Your task to perform on an android device: Clear the shopping cart on walmart.com. Add razer blade to the cart on walmart.com Image 0: 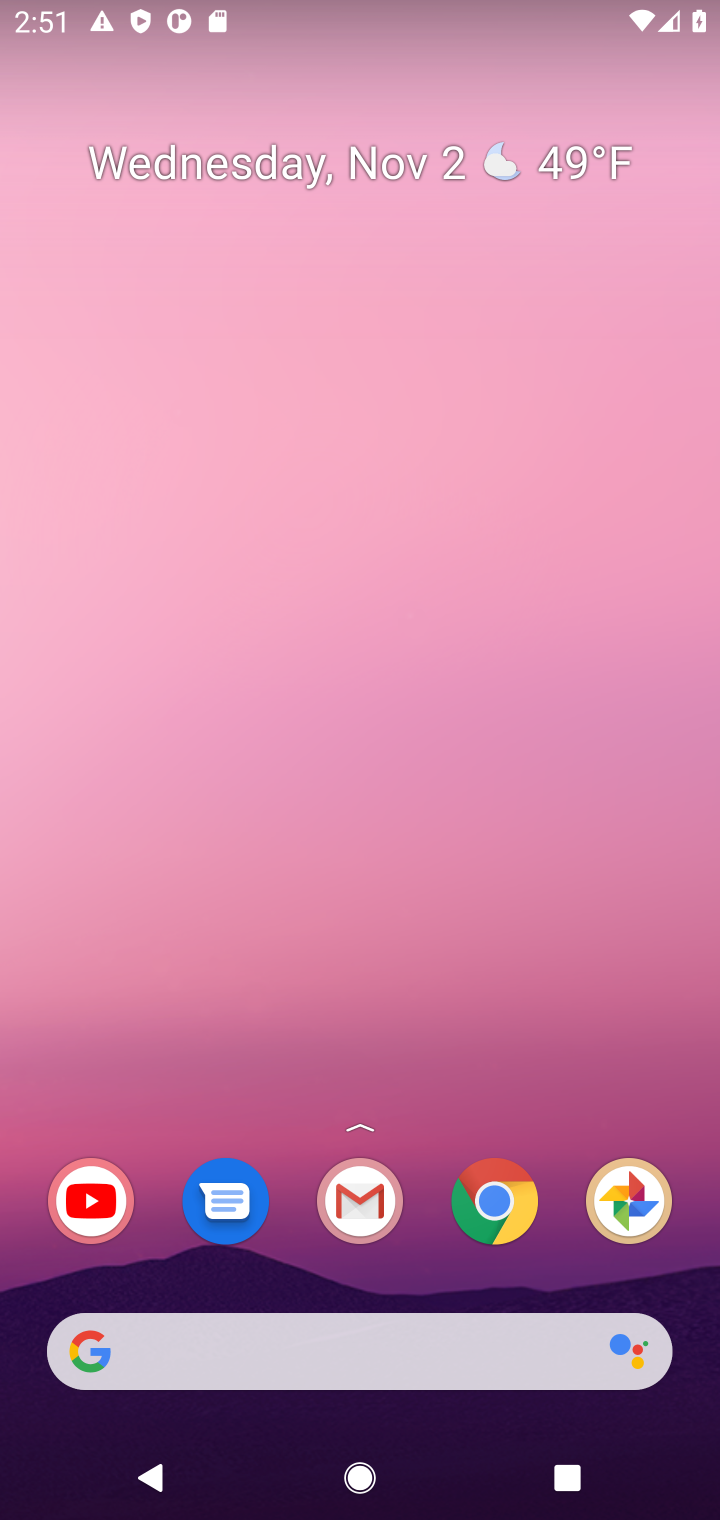
Step 0: click (483, 1191)
Your task to perform on an android device: Clear the shopping cart on walmart.com. Add razer blade to the cart on walmart.com Image 1: 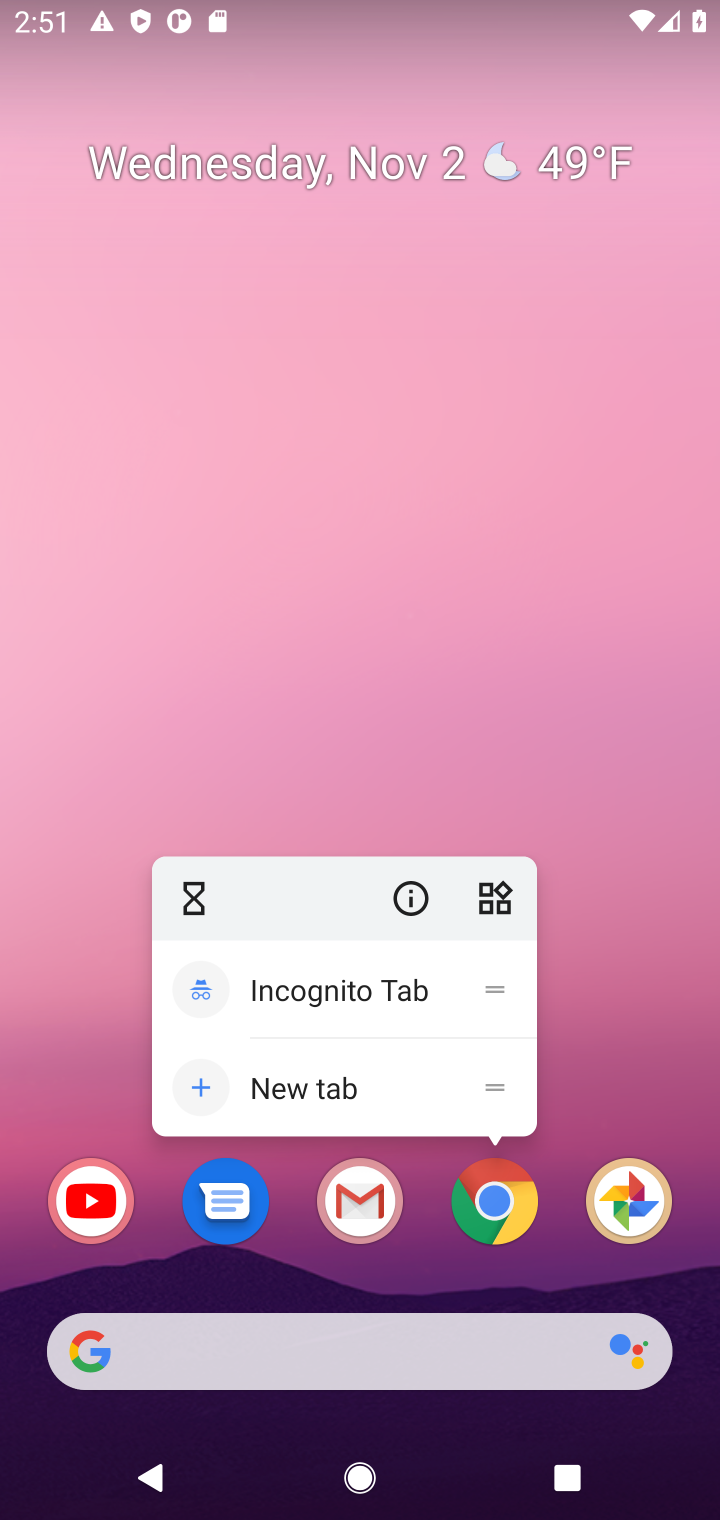
Step 1: click (492, 1199)
Your task to perform on an android device: Clear the shopping cart on walmart.com. Add razer blade to the cart on walmart.com Image 2: 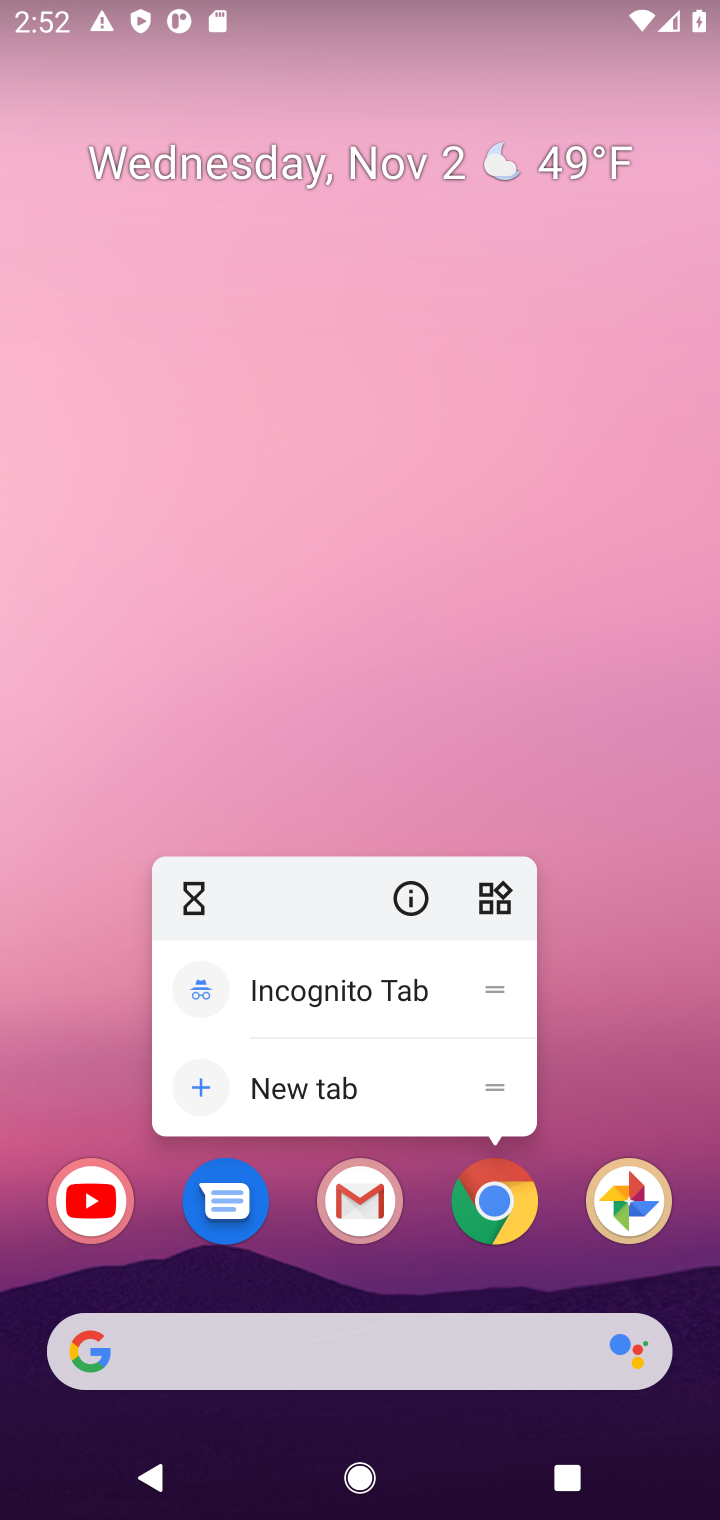
Step 2: click (494, 1190)
Your task to perform on an android device: Clear the shopping cart on walmart.com. Add razer blade to the cart on walmart.com Image 3: 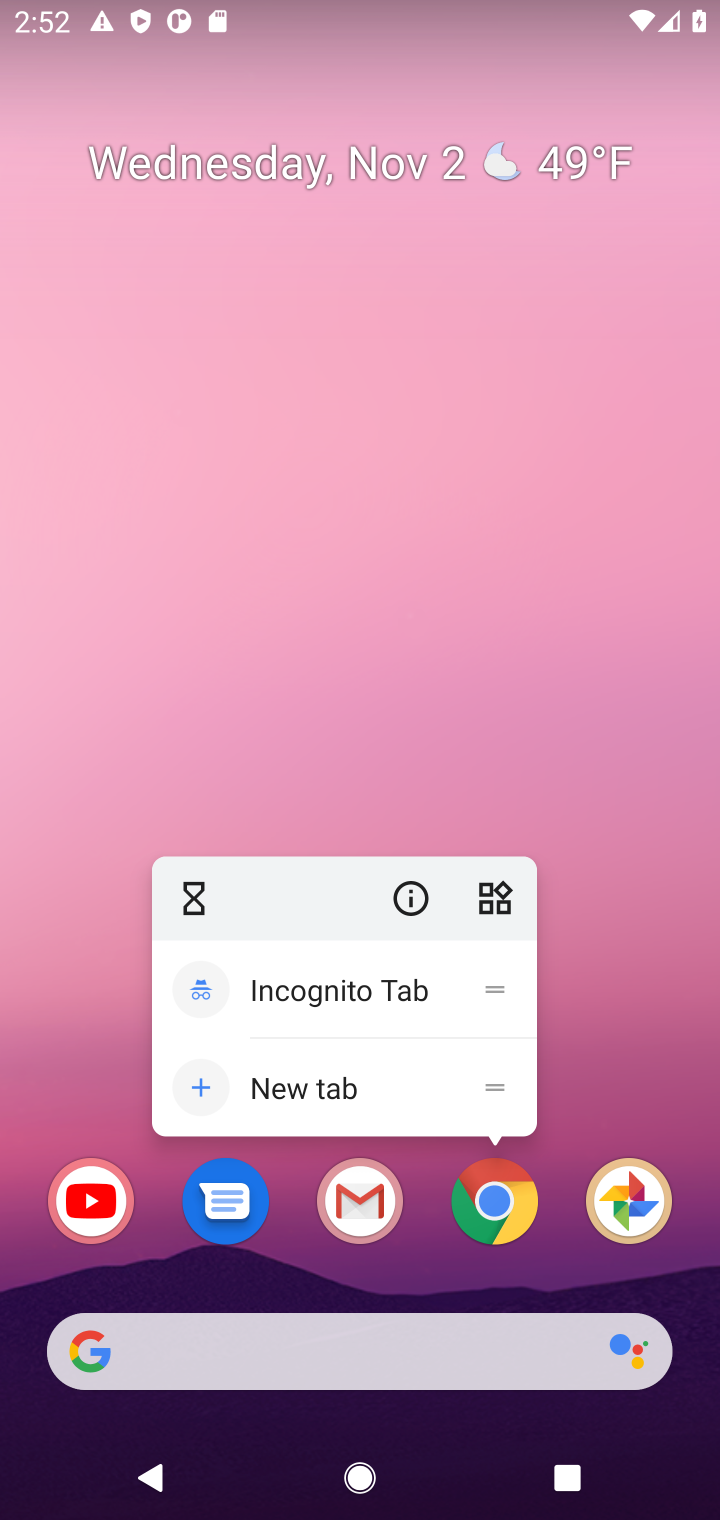
Step 3: click (489, 1202)
Your task to perform on an android device: Clear the shopping cart on walmart.com. Add razer blade to the cart on walmart.com Image 4: 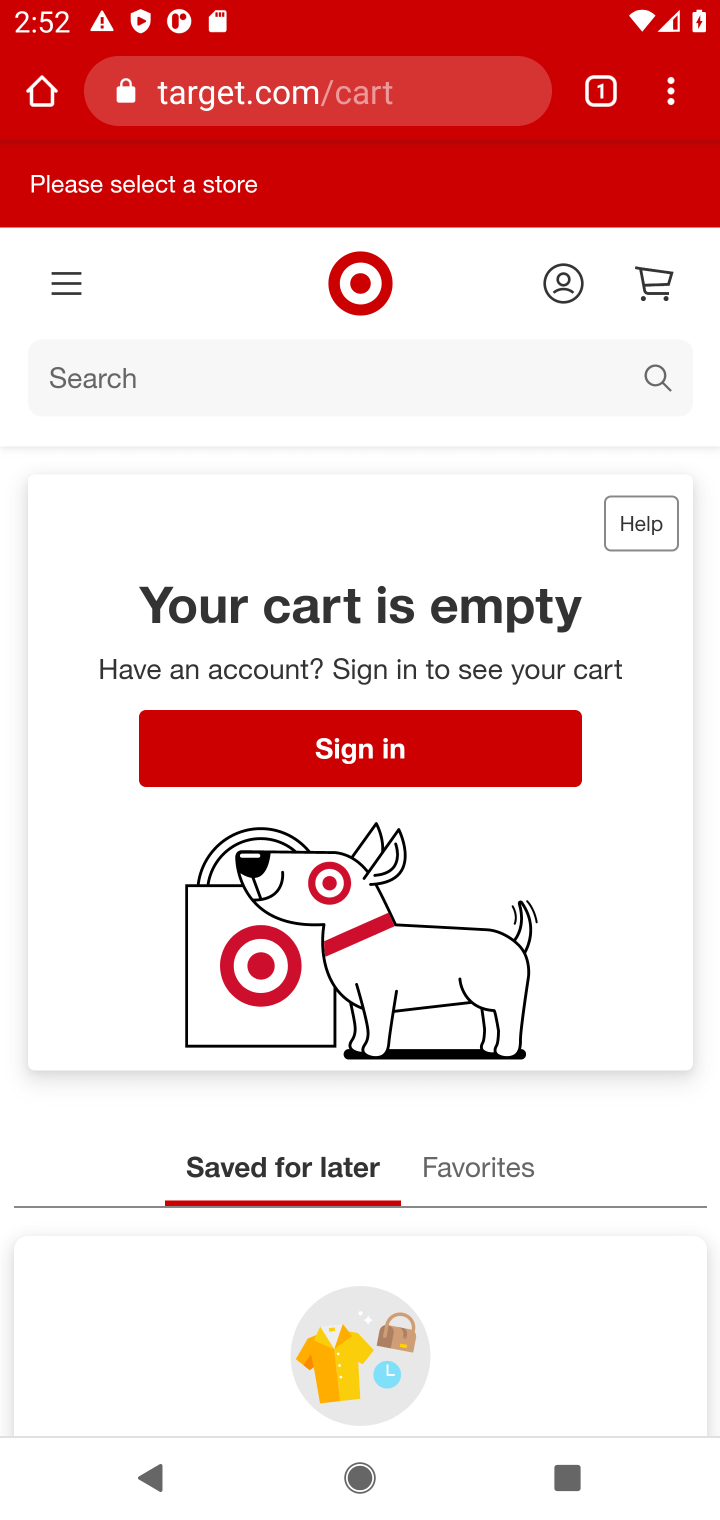
Step 4: click (310, 84)
Your task to perform on an android device: Clear the shopping cart on walmart.com. Add razer blade to the cart on walmart.com Image 5: 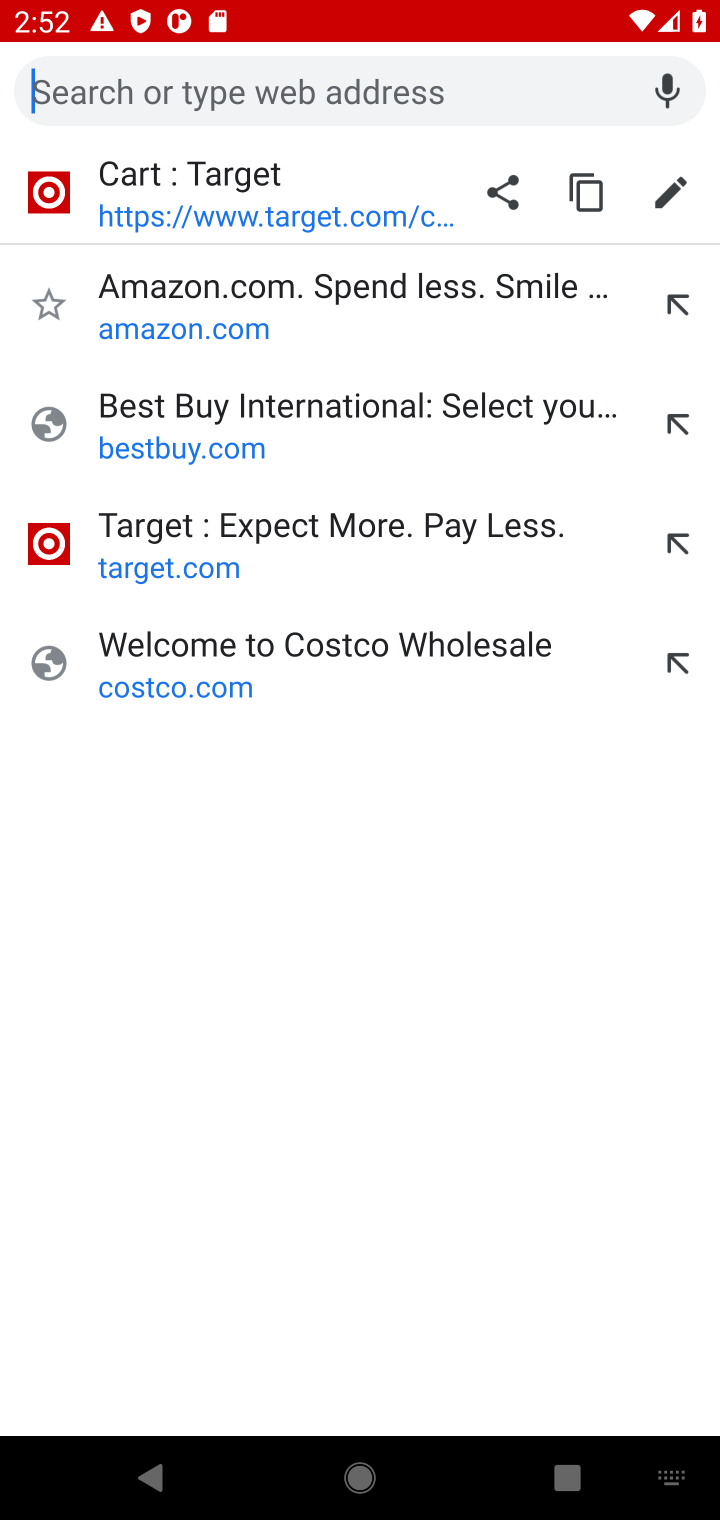
Step 5: type " walmart.com"
Your task to perform on an android device: Clear the shopping cart on walmart.com. Add razer blade to the cart on walmart.com Image 6: 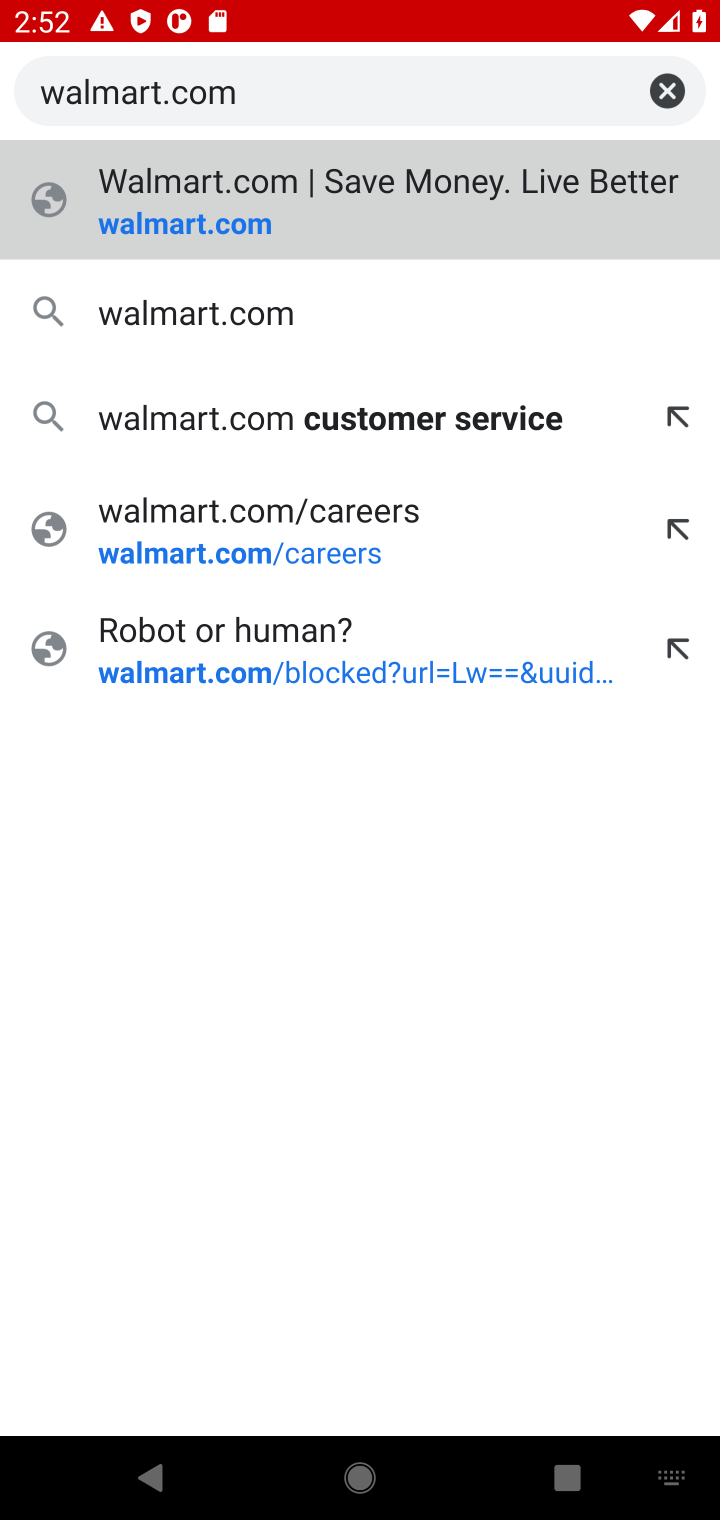
Step 6: press enter
Your task to perform on an android device: Clear the shopping cart on walmart.com. Add razer blade to the cart on walmart.com Image 7: 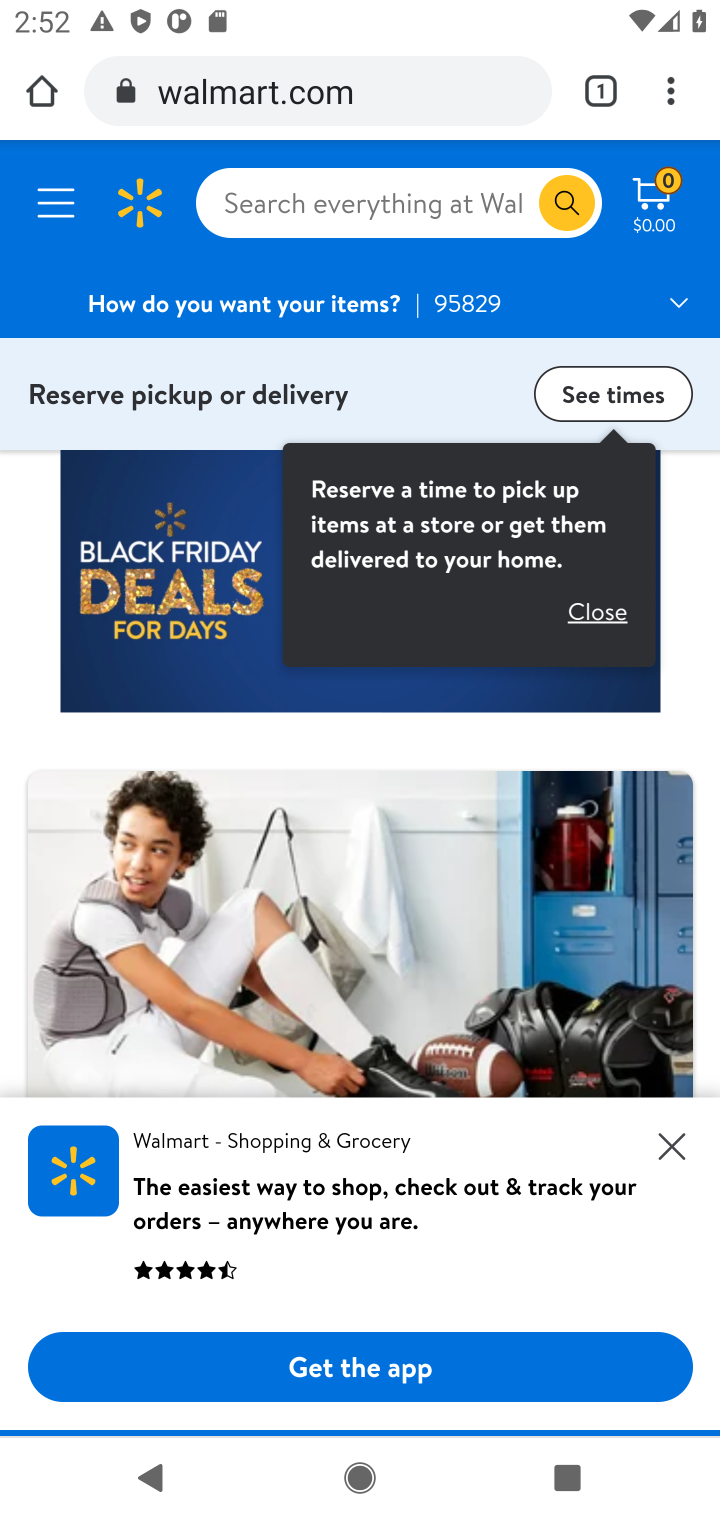
Step 7: click (399, 200)
Your task to perform on an android device: Clear the shopping cart on walmart.com. Add razer blade to the cart on walmart.com Image 8: 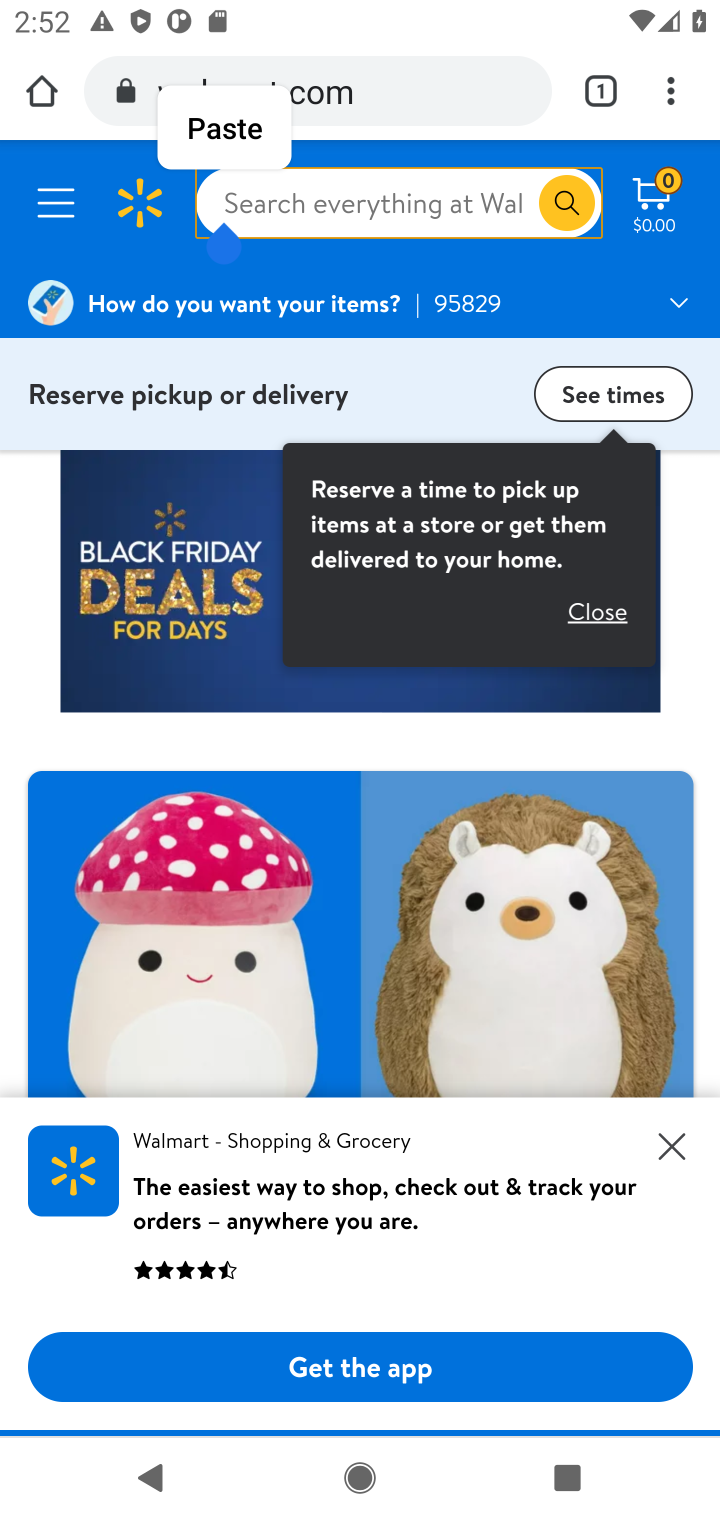
Step 8: click (396, 211)
Your task to perform on an android device: Clear the shopping cart on walmart.com. Add razer blade to the cart on walmart.com Image 9: 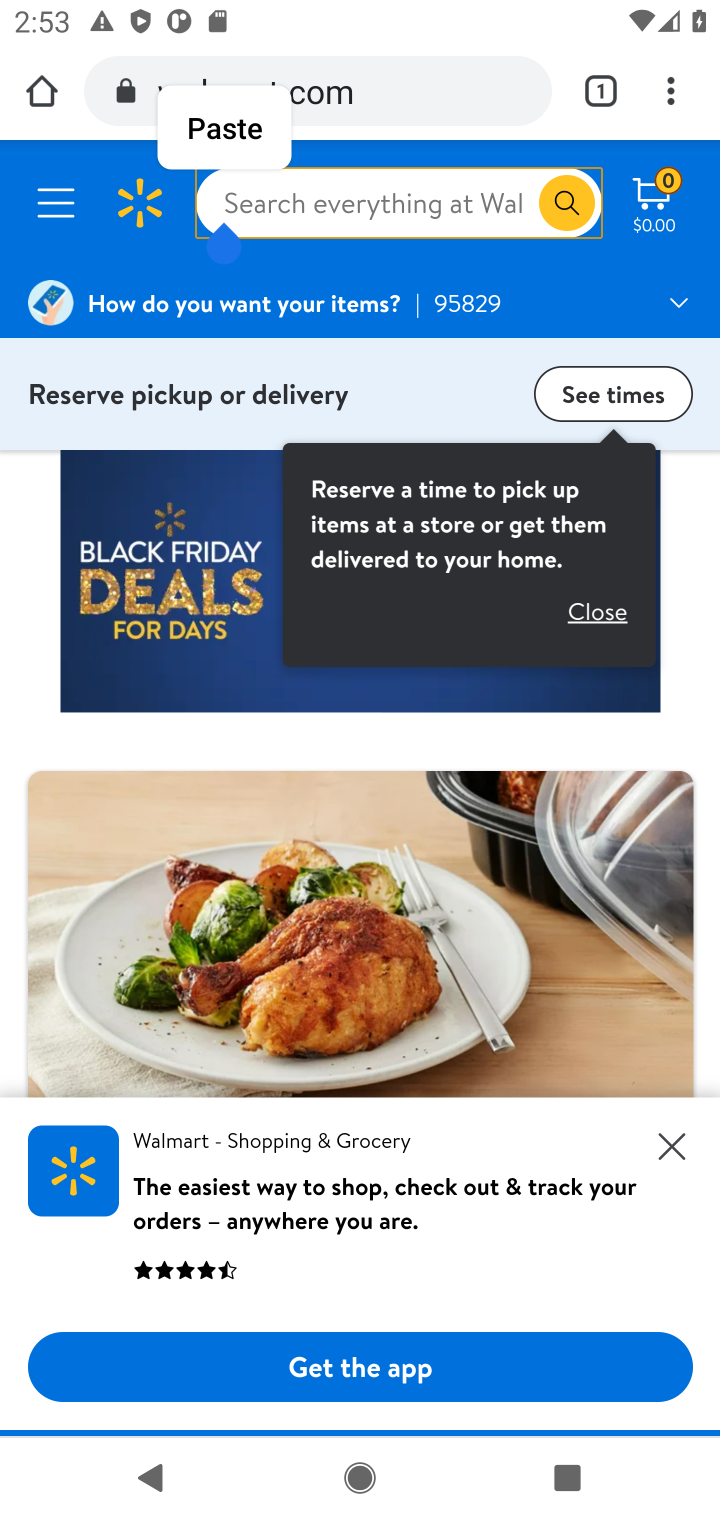
Step 9: click (492, 195)
Your task to perform on an android device: Clear the shopping cart on walmart.com. Add razer blade to the cart on walmart.com Image 10: 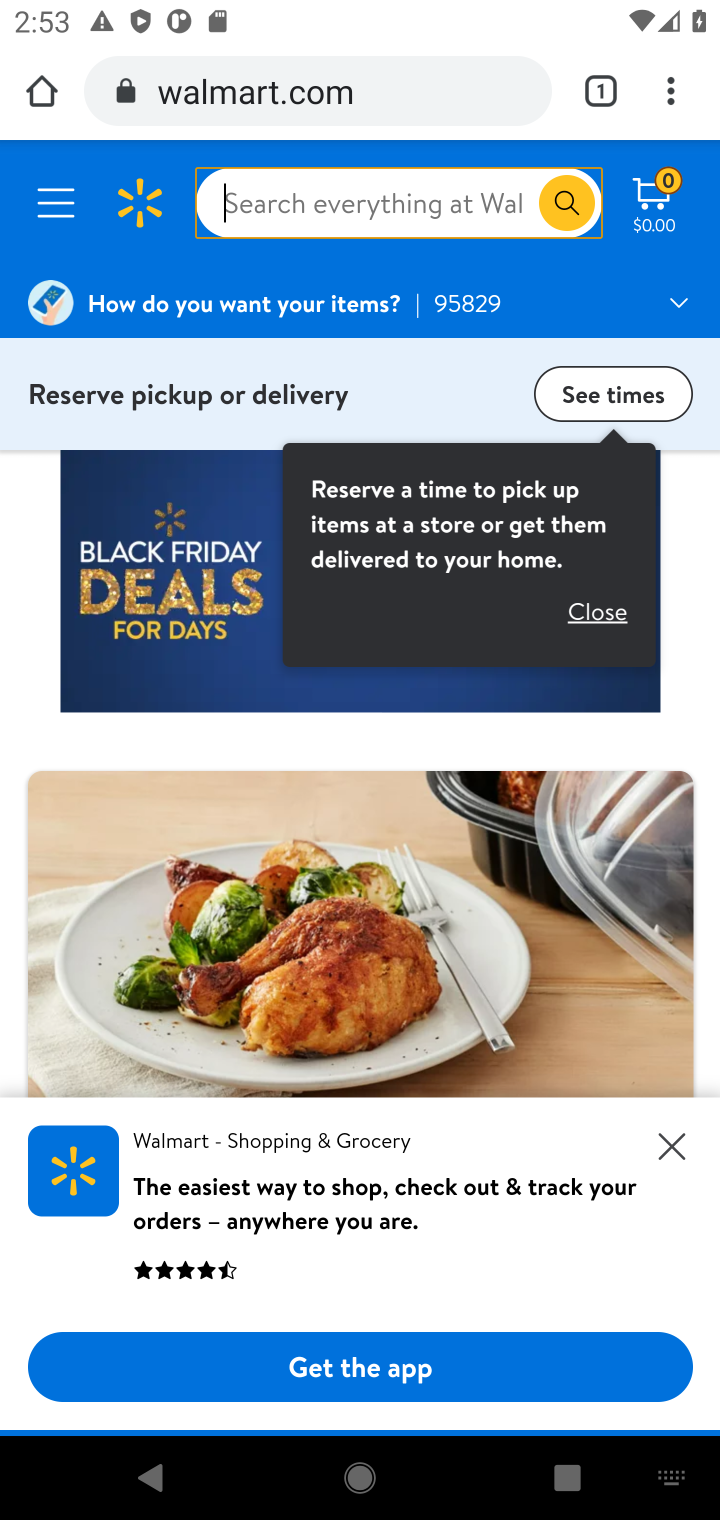
Step 10: click (293, 204)
Your task to perform on an android device: Clear the shopping cart on walmart.com. Add razer blade to the cart on walmart.com Image 11: 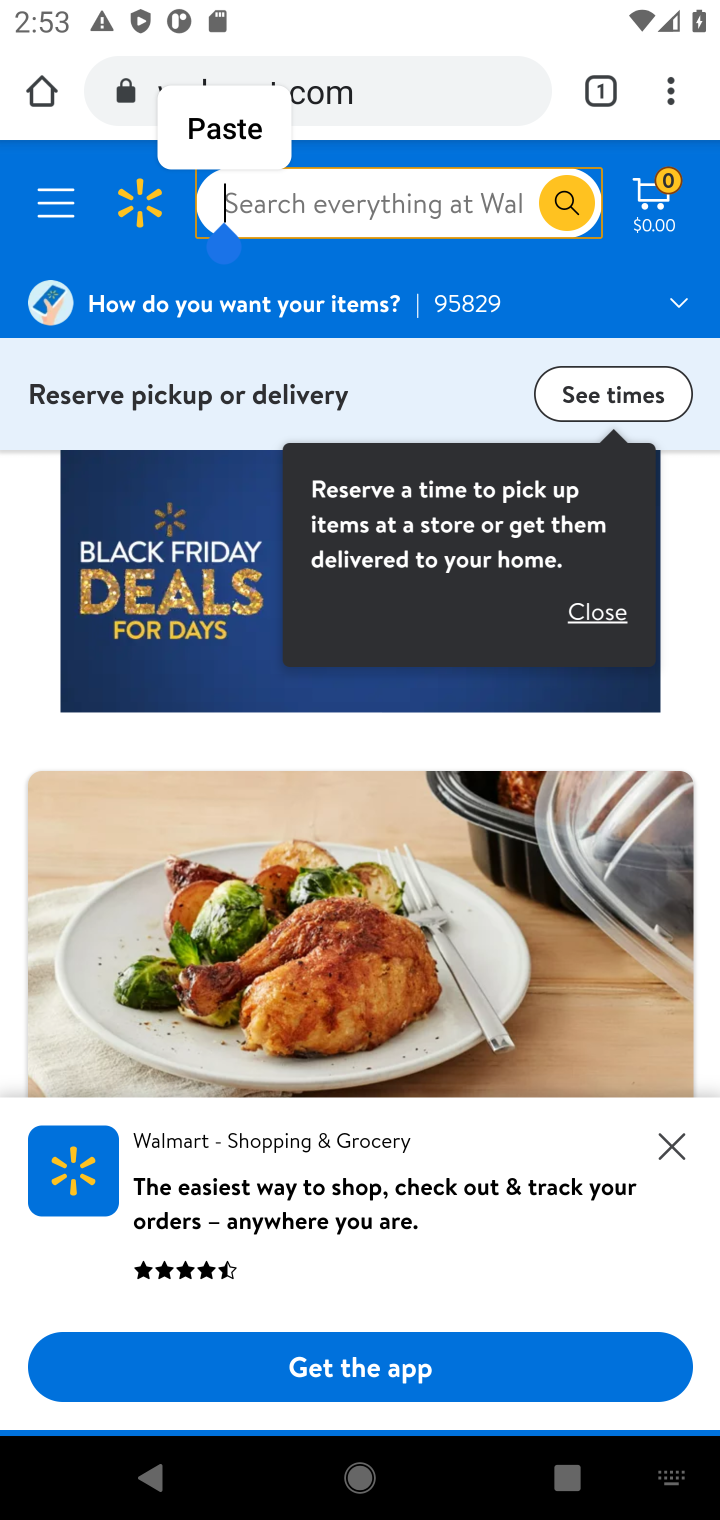
Step 11: type "razer blade "
Your task to perform on an android device: Clear the shopping cart on walmart.com. Add razer blade to the cart on walmart.com Image 12: 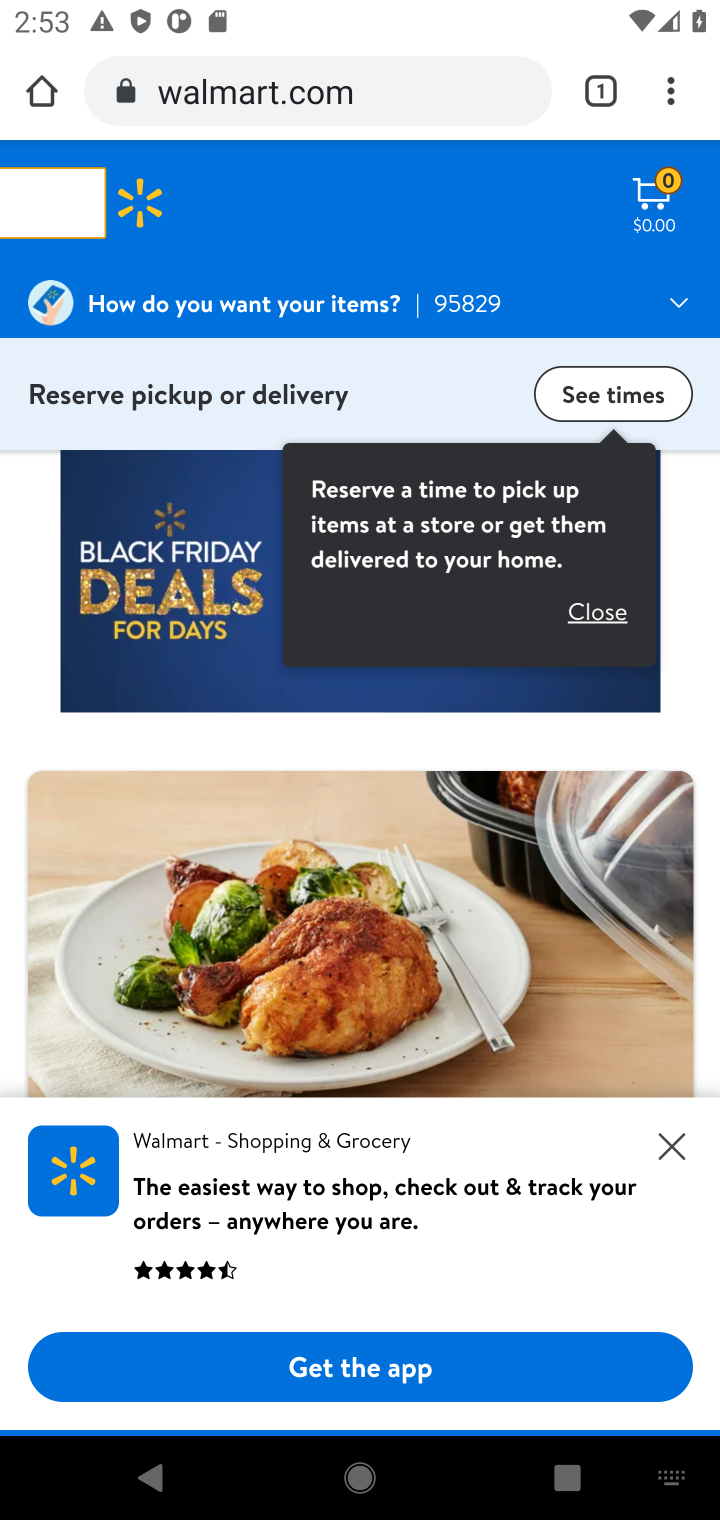
Step 12: press enter
Your task to perform on an android device: Clear the shopping cart on walmart.com. Add razer blade to the cart on walmart.com Image 13: 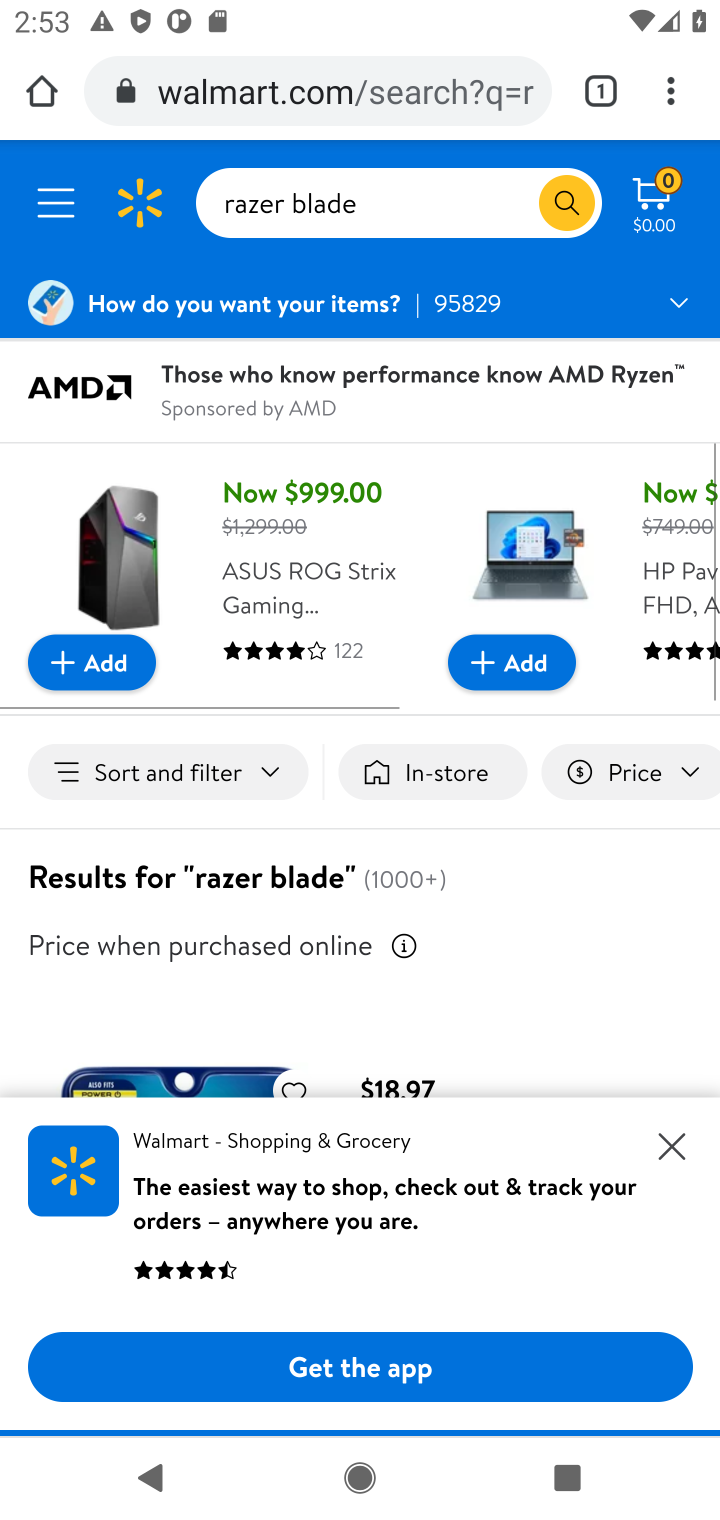
Step 13: click (670, 1142)
Your task to perform on an android device: Clear the shopping cart on walmart.com. Add razer blade to the cart on walmart.com Image 14: 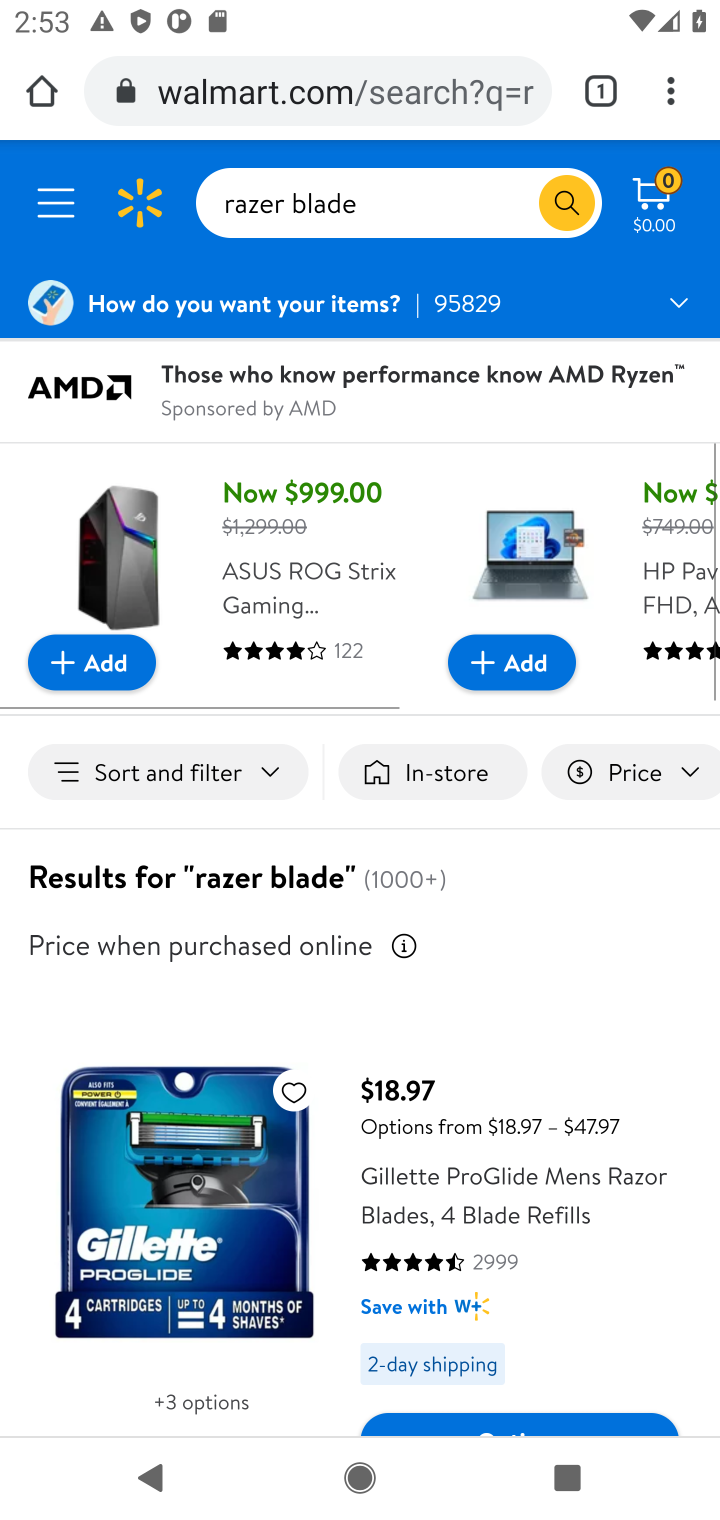
Step 14: drag from (578, 1296) to (636, 1017)
Your task to perform on an android device: Clear the shopping cart on walmart.com. Add razer blade to the cart on walmart.com Image 15: 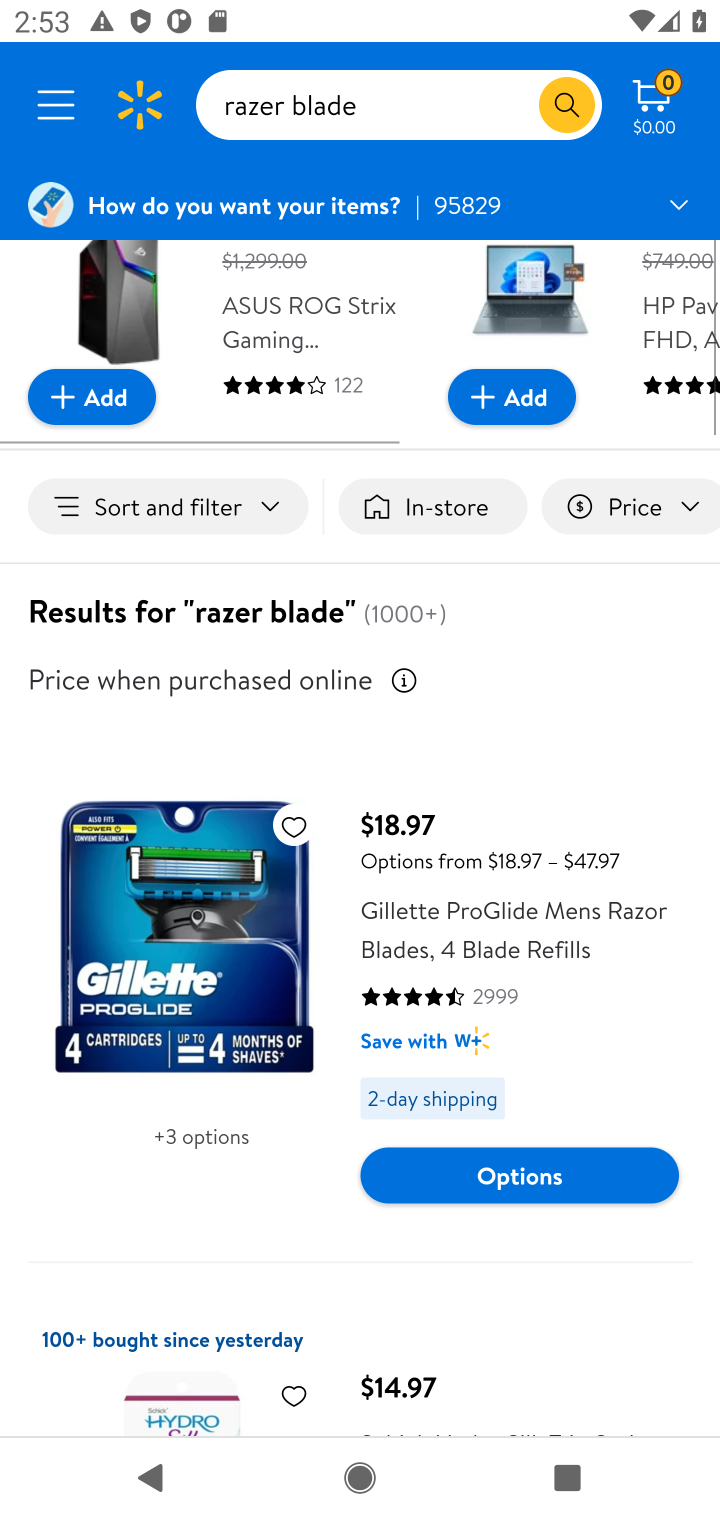
Step 15: click (495, 883)
Your task to perform on an android device: Clear the shopping cart on walmart.com. Add razer blade to the cart on walmart.com Image 16: 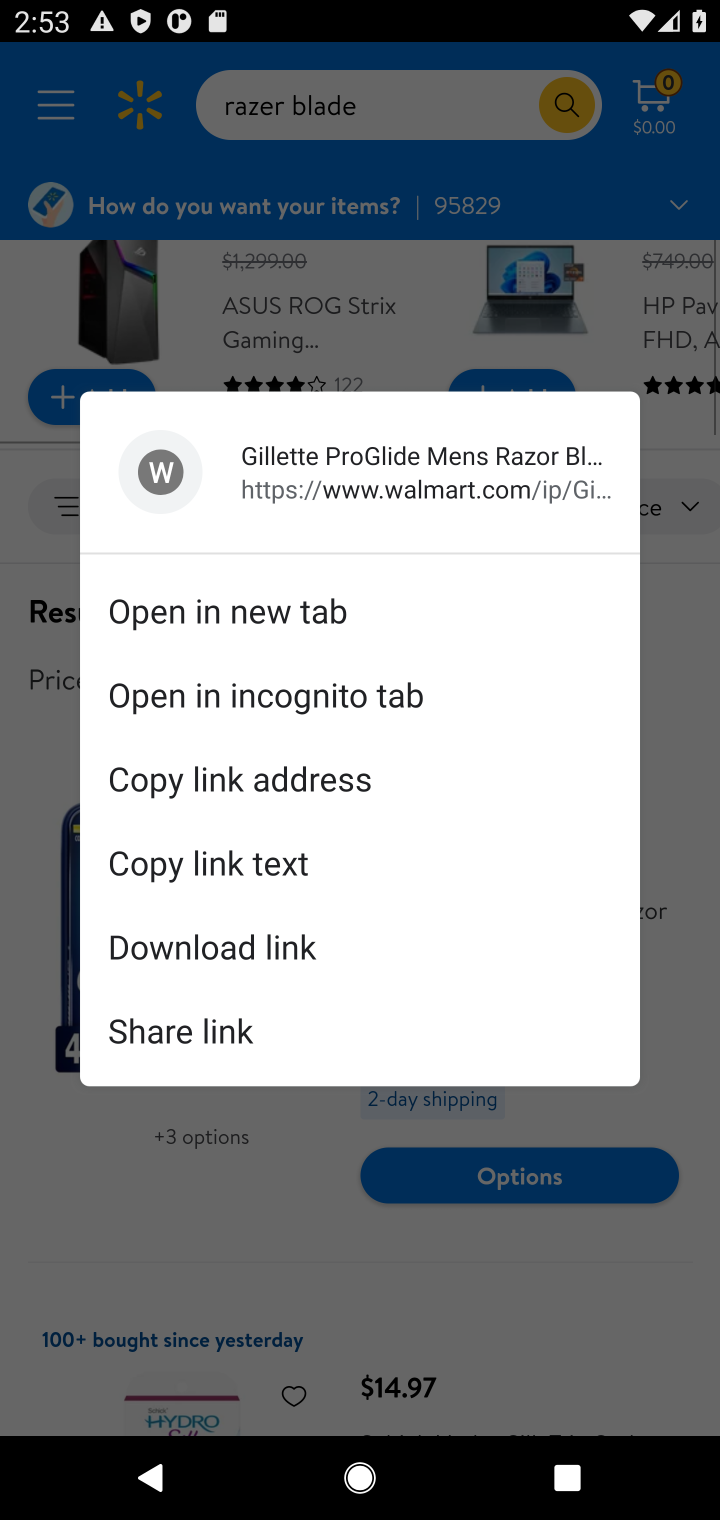
Step 16: click (665, 930)
Your task to perform on an android device: Clear the shopping cart on walmart.com. Add razer blade to the cart on walmart.com Image 17: 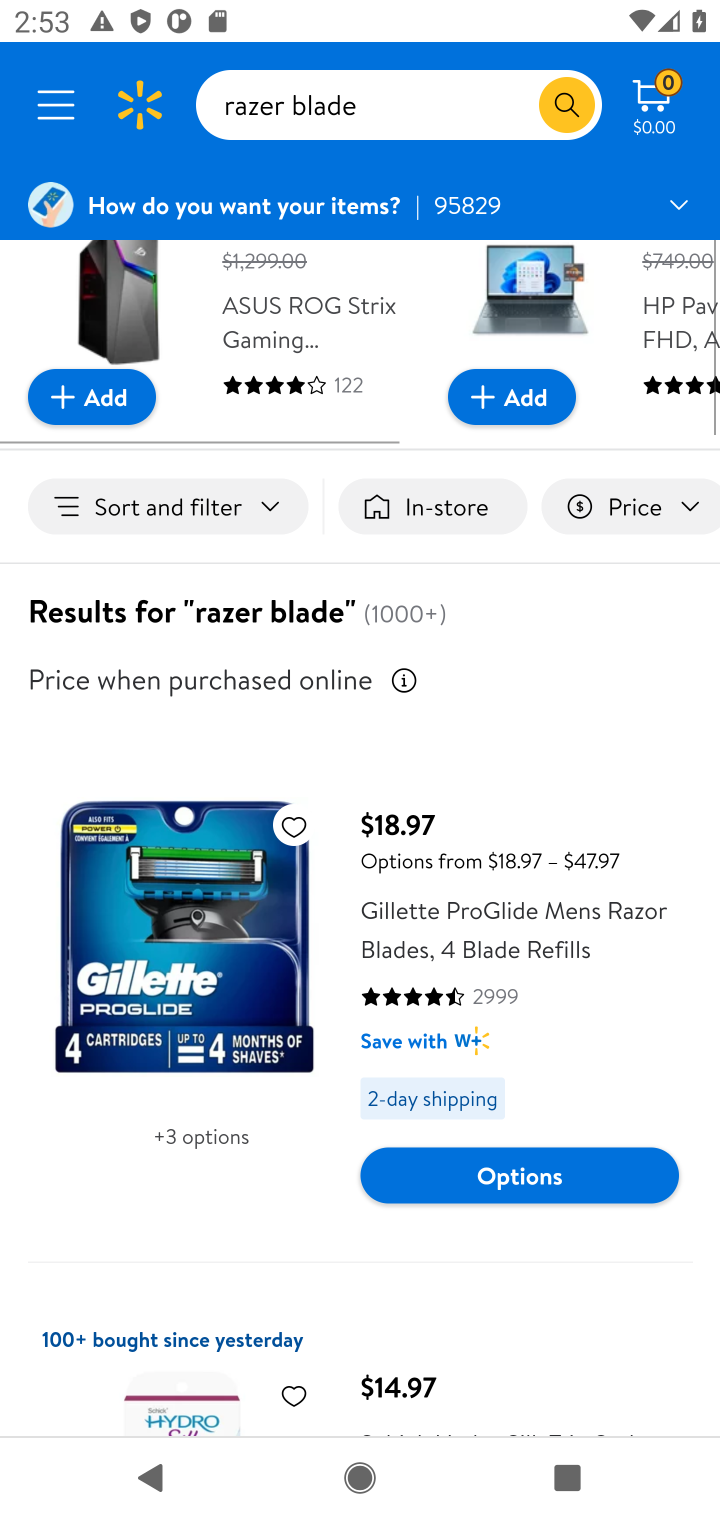
Step 17: click (484, 917)
Your task to perform on an android device: Clear the shopping cart on walmart.com. Add razer blade to the cart on walmart.com Image 18: 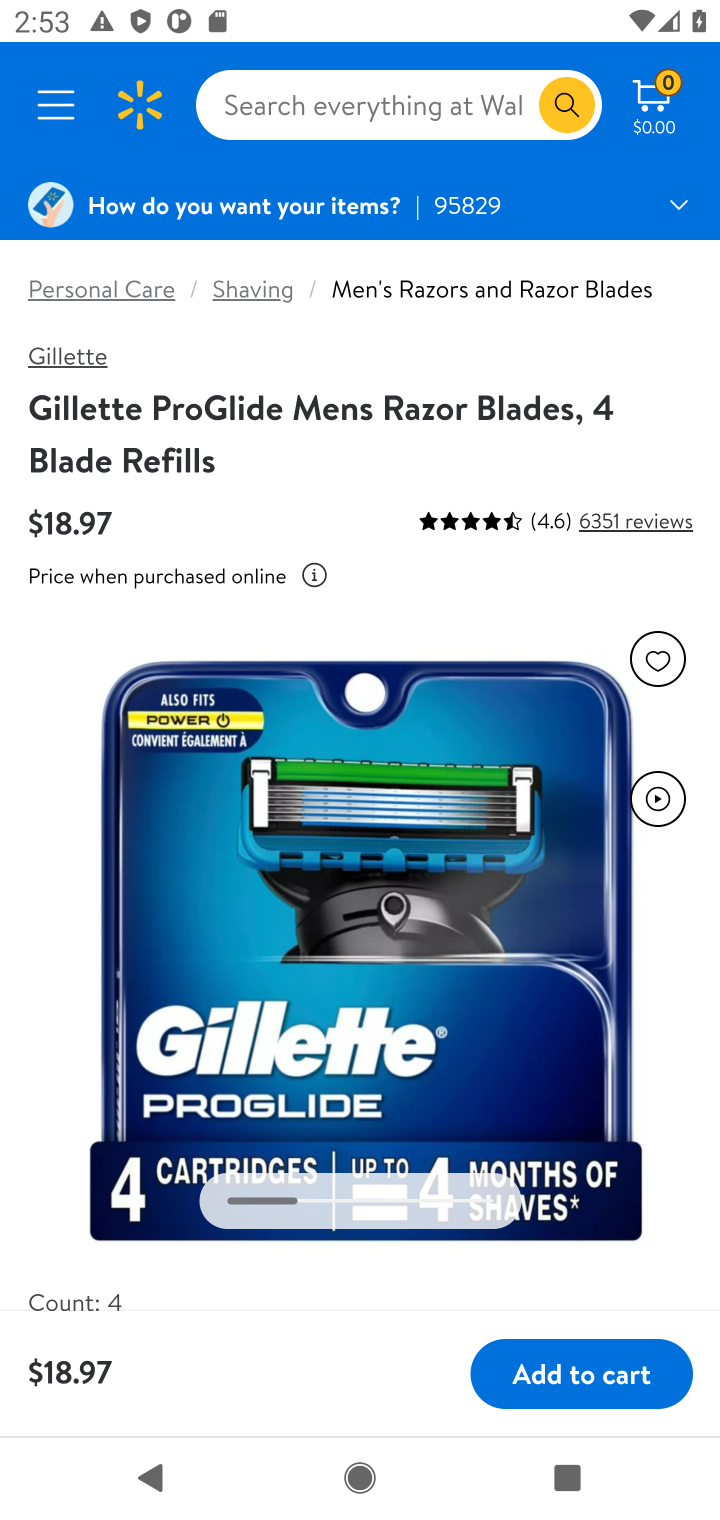
Step 18: drag from (187, 1254) to (543, 524)
Your task to perform on an android device: Clear the shopping cart on walmart.com. Add razer blade to the cart on walmart.com Image 19: 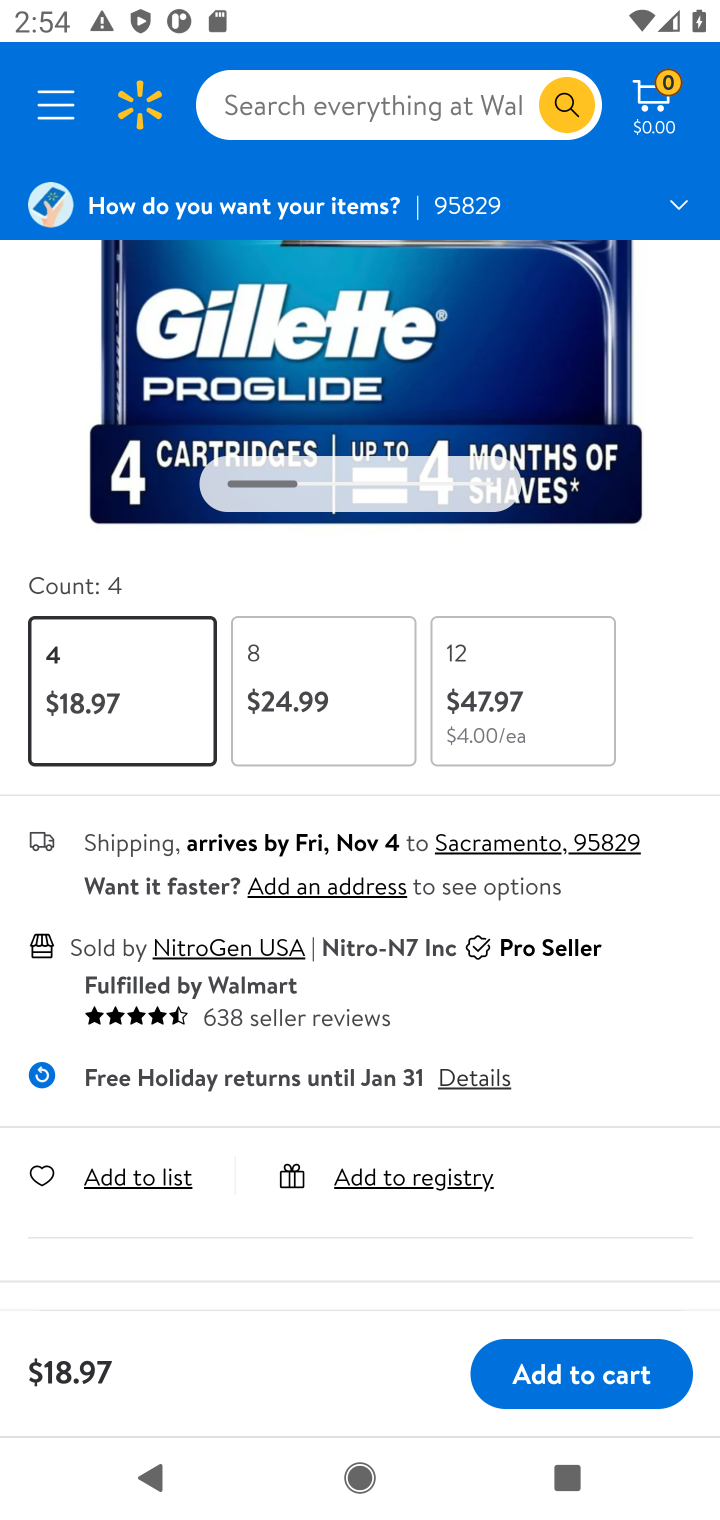
Step 19: click (593, 1380)
Your task to perform on an android device: Clear the shopping cart on walmart.com. Add razer blade to the cart on walmart.com Image 20: 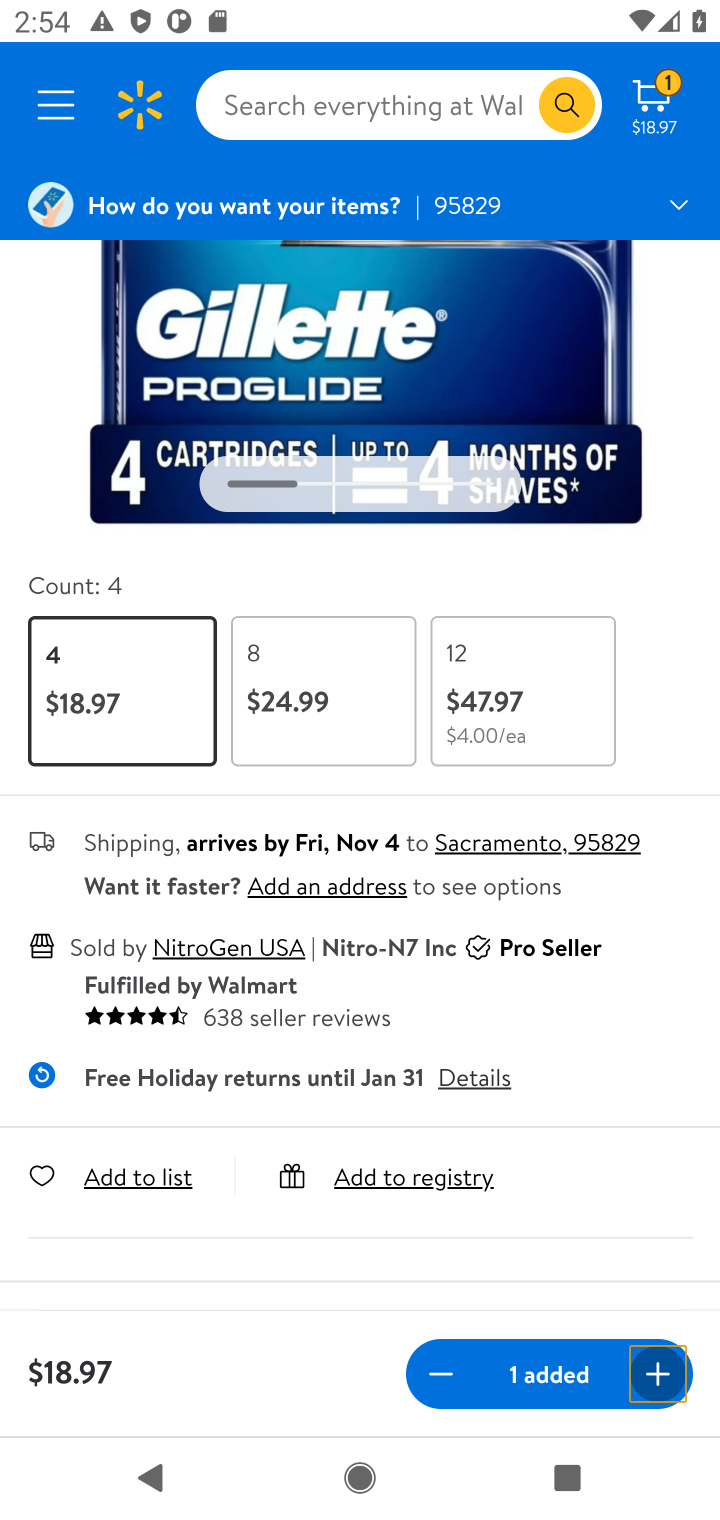
Step 20: task complete